Your task to perform on an android device: Open maps Image 0: 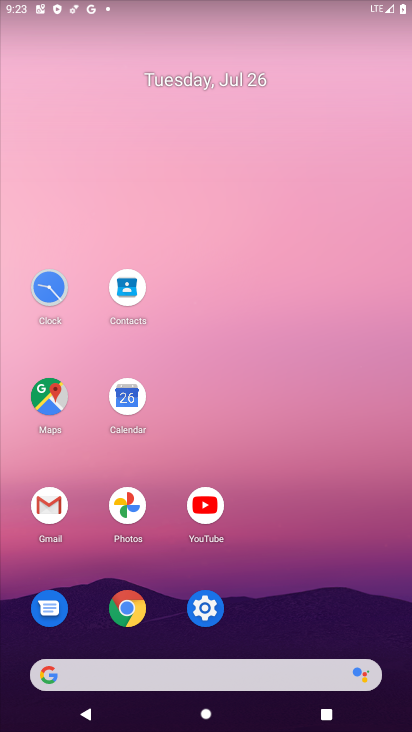
Step 0: click (42, 393)
Your task to perform on an android device: Open maps Image 1: 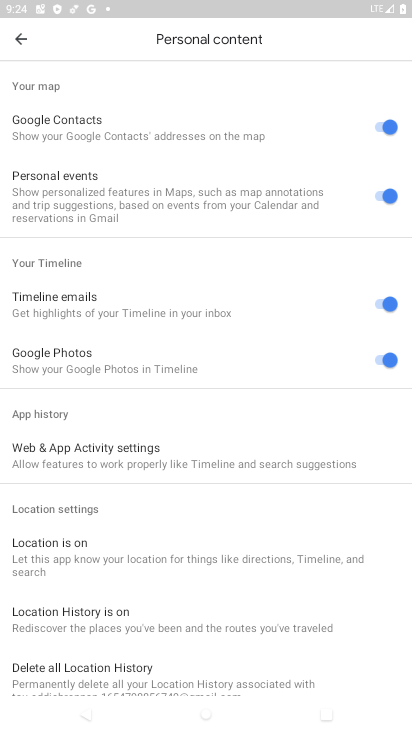
Step 1: click (17, 34)
Your task to perform on an android device: Open maps Image 2: 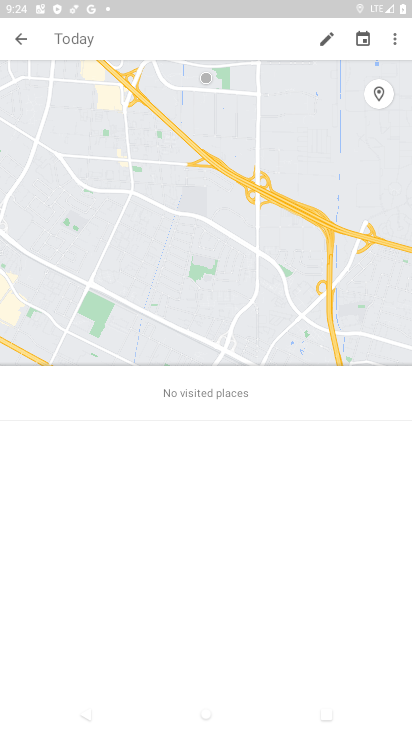
Step 2: click (14, 36)
Your task to perform on an android device: Open maps Image 3: 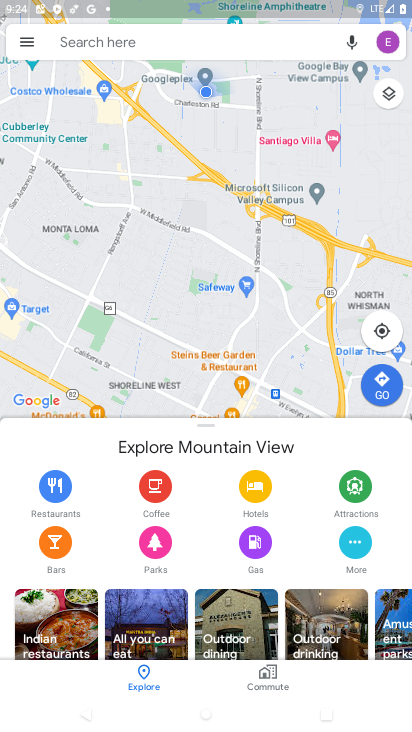
Step 3: task complete